Your task to perform on an android device: Show me productivity apps on the Play Store Image 0: 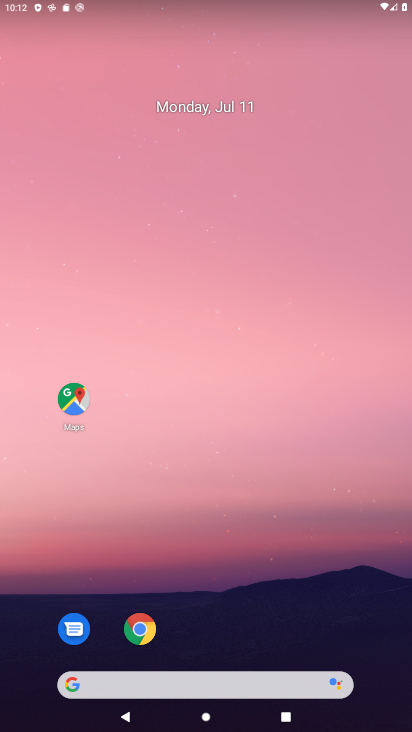
Step 0: drag from (225, 646) to (202, 316)
Your task to perform on an android device: Show me productivity apps on the Play Store Image 1: 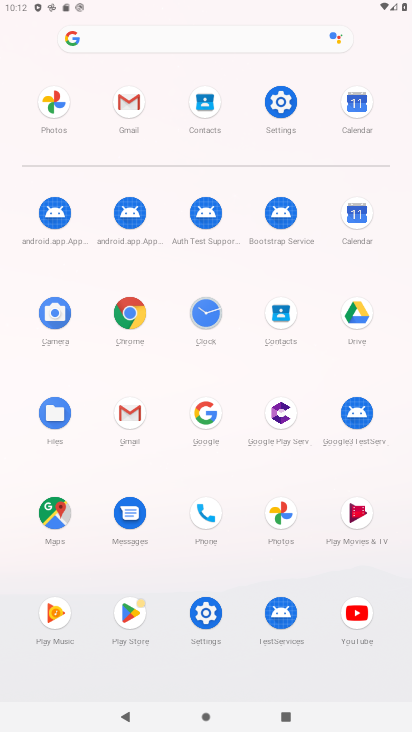
Step 1: click (130, 635)
Your task to perform on an android device: Show me productivity apps on the Play Store Image 2: 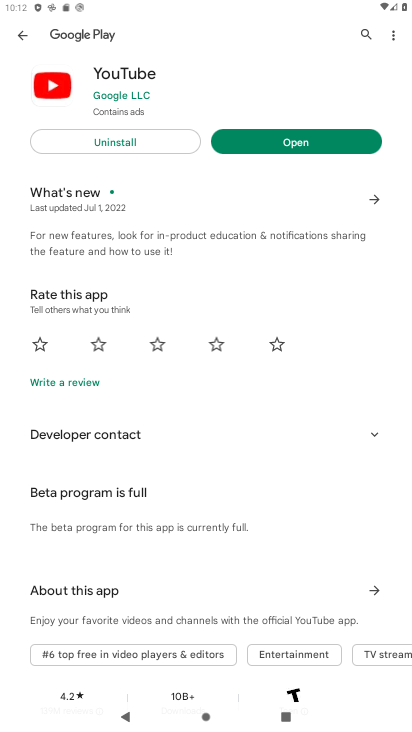
Step 2: click (22, 41)
Your task to perform on an android device: Show me productivity apps on the Play Store Image 3: 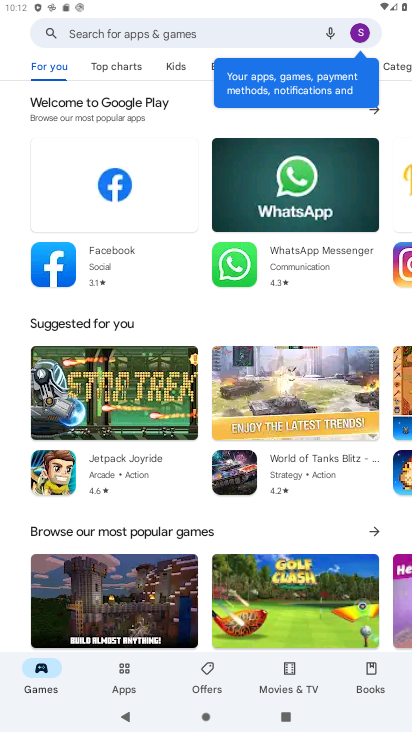
Step 3: click (136, 60)
Your task to perform on an android device: Show me productivity apps on the Play Store Image 4: 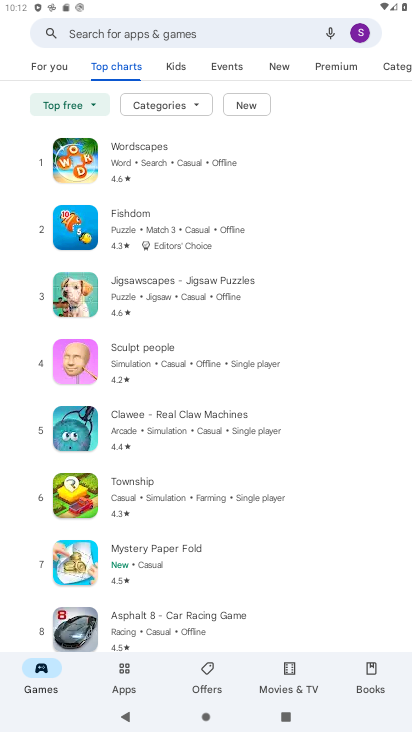
Step 4: click (59, 68)
Your task to perform on an android device: Show me productivity apps on the Play Store Image 5: 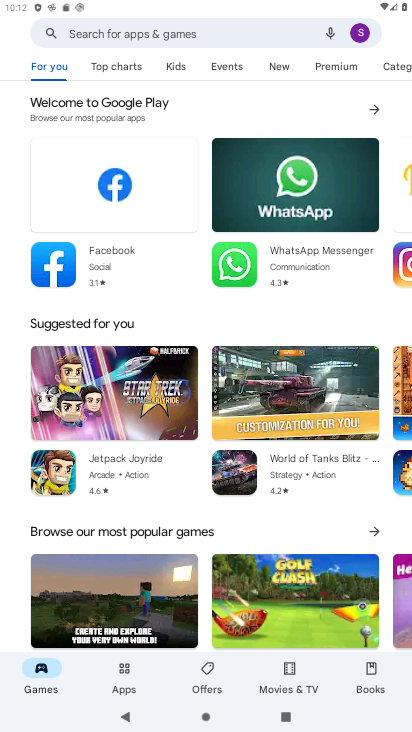
Step 5: click (139, 668)
Your task to perform on an android device: Show me productivity apps on the Play Store Image 6: 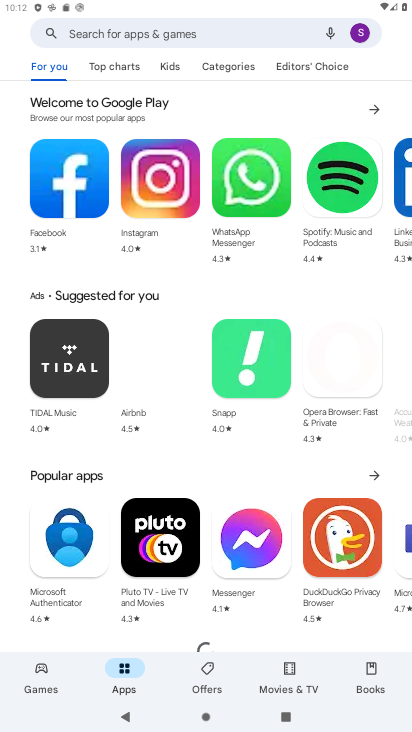
Step 6: click (146, 72)
Your task to perform on an android device: Show me productivity apps on the Play Store Image 7: 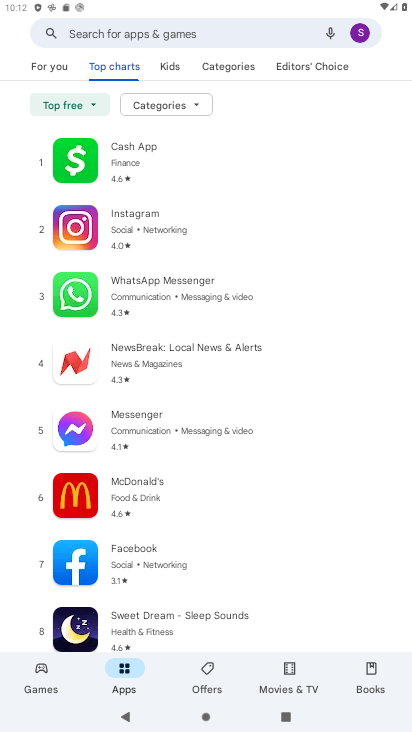
Step 7: click (210, 108)
Your task to perform on an android device: Show me productivity apps on the Play Store Image 8: 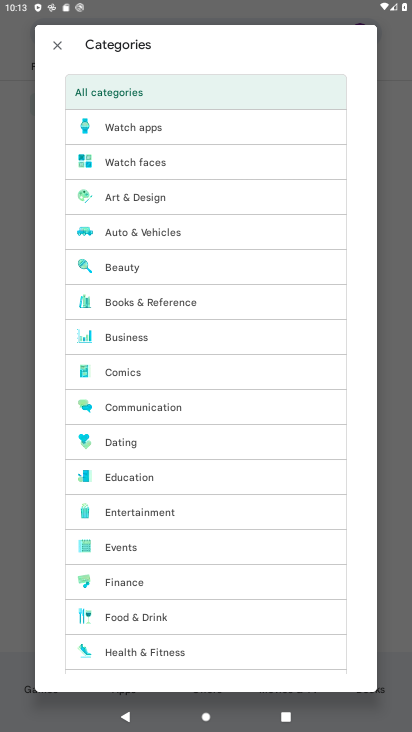
Step 8: drag from (224, 644) to (221, 446)
Your task to perform on an android device: Show me productivity apps on the Play Store Image 9: 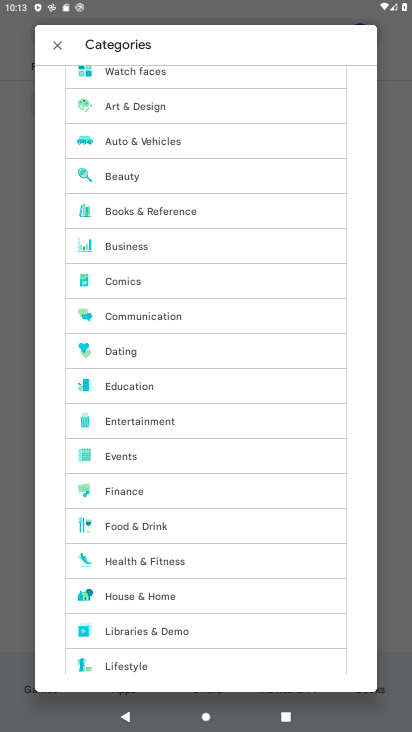
Step 9: drag from (174, 663) to (162, 257)
Your task to perform on an android device: Show me productivity apps on the Play Store Image 10: 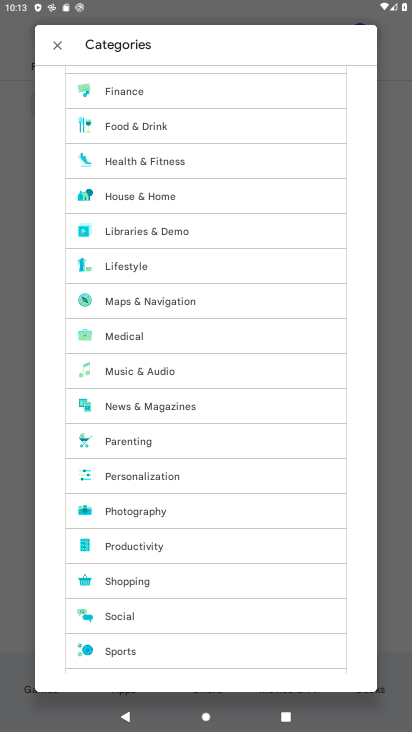
Step 10: click (135, 560)
Your task to perform on an android device: Show me productivity apps on the Play Store Image 11: 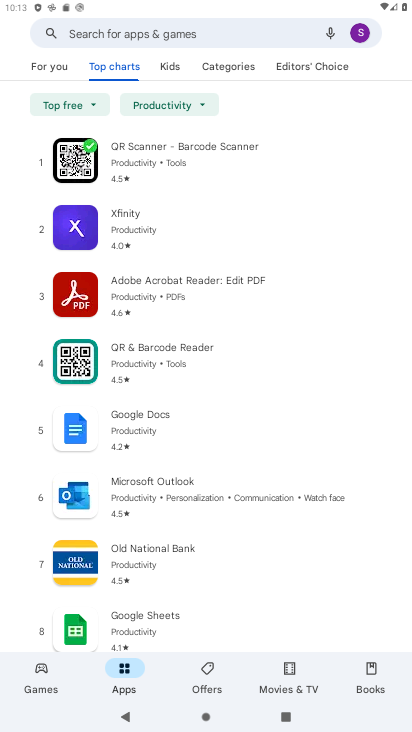
Step 11: task complete